Your task to perform on an android device: Is it going to rain today? Image 0: 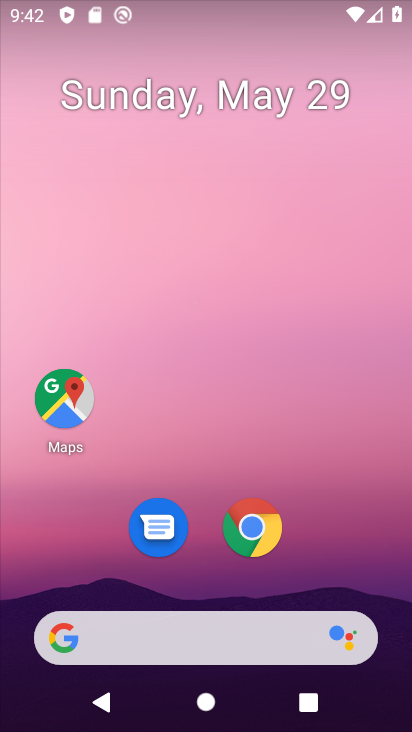
Step 0: drag from (341, 531) to (328, 457)
Your task to perform on an android device: Is it going to rain today? Image 1: 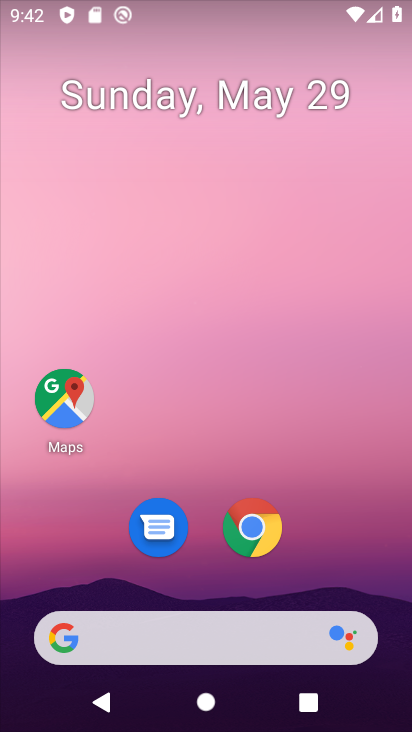
Step 1: click (256, 522)
Your task to perform on an android device: Is it going to rain today? Image 2: 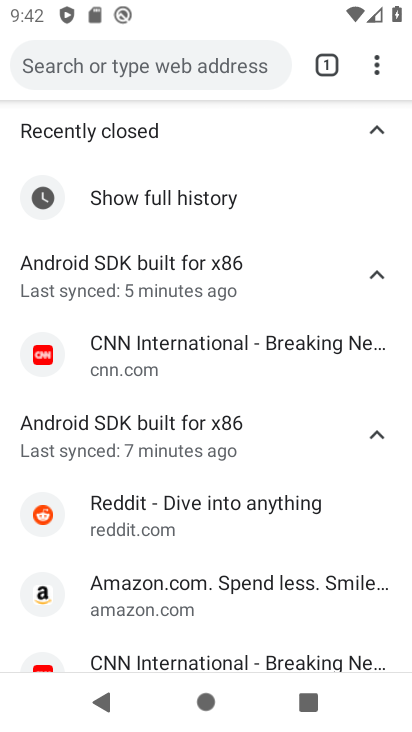
Step 2: click (186, 48)
Your task to perform on an android device: Is it going to rain today? Image 3: 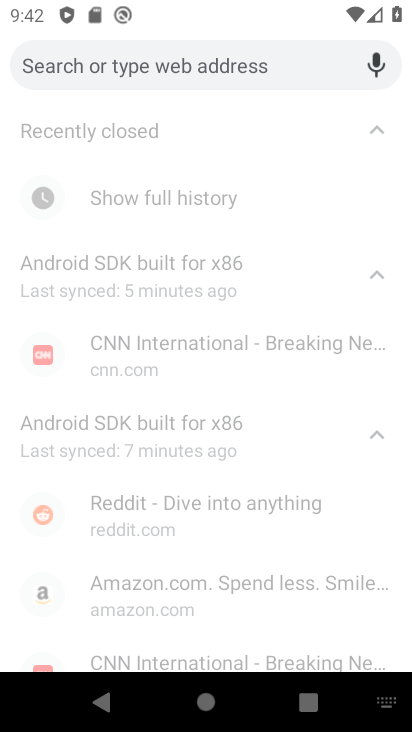
Step 3: type "weather"
Your task to perform on an android device: Is it going to rain today? Image 4: 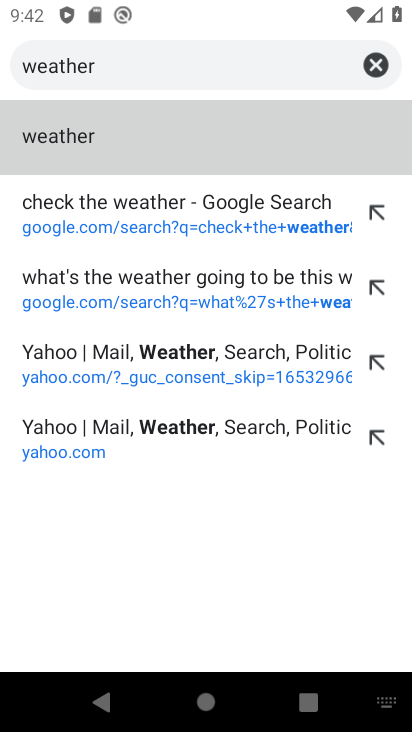
Step 4: click (54, 129)
Your task to perform on an android device: Is it going to rain today? Image 5: 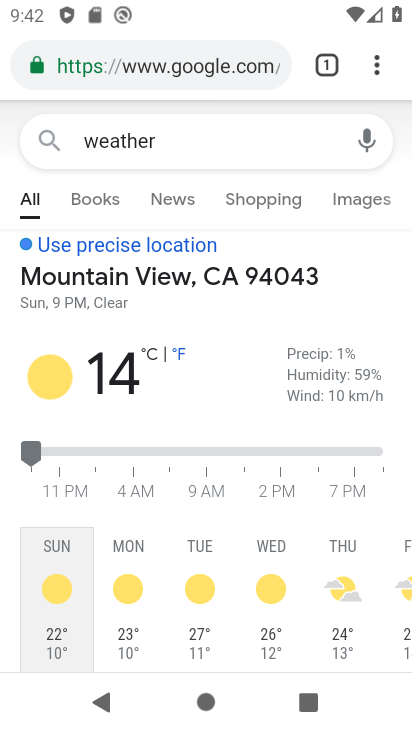
Step 5: task complete